Your task to perform on an android device: stop showing notifications on the lock screen Image 0: 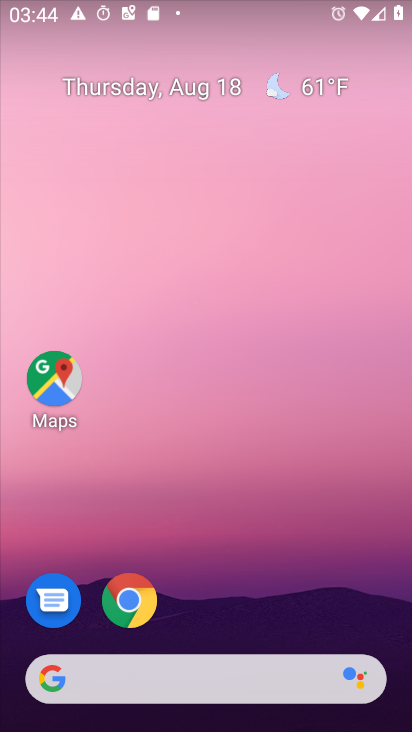
Step 0: drag from (246, 625) to (231, 0)
Your task to perform on an android device: stop showing notifications on the lock screen Image 1: 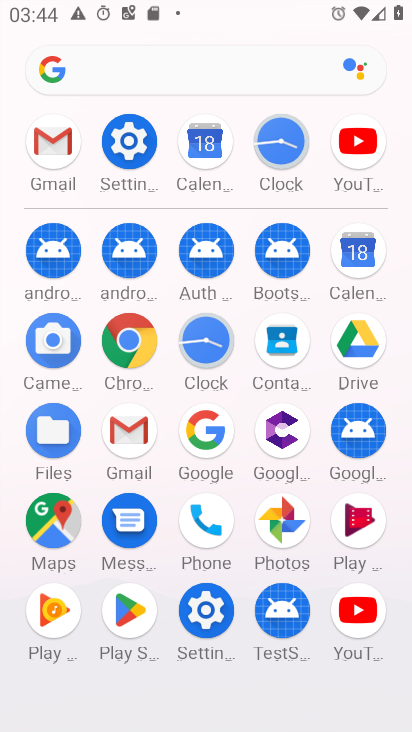
Step 1: click (123, 169)
Your task to perform on an android device: stop showing notifications on the lock screen Image 2: 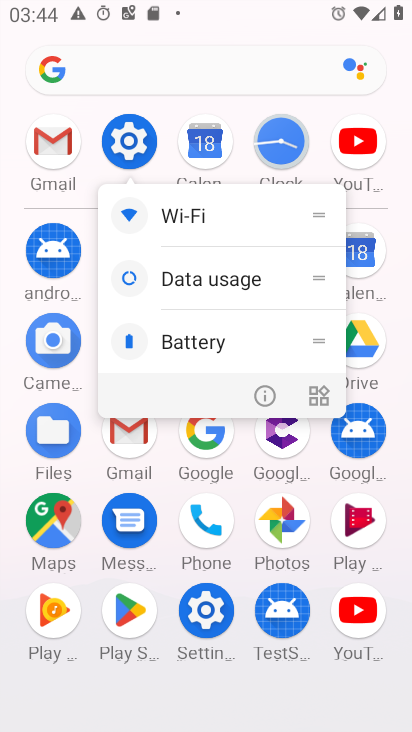
Step 2: click (133, 157)
Your task to perform on an android device: stop showing notifications on the lock screen Image 3: 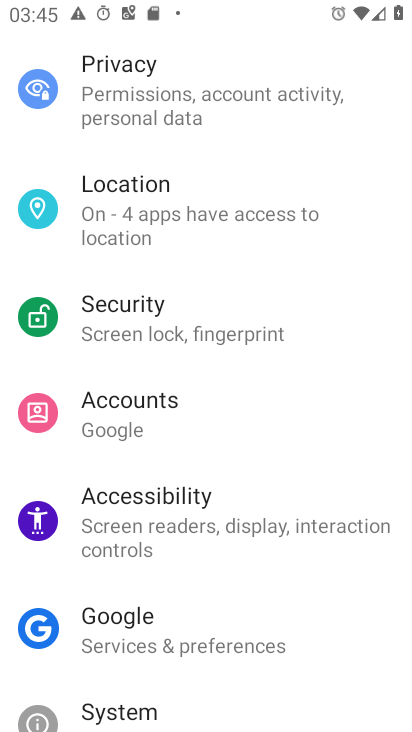
Step 3: drag from (316, 167) to (301, 683)
Your task to perform on an android device: stop showing notifications on the lock screen Image 4: 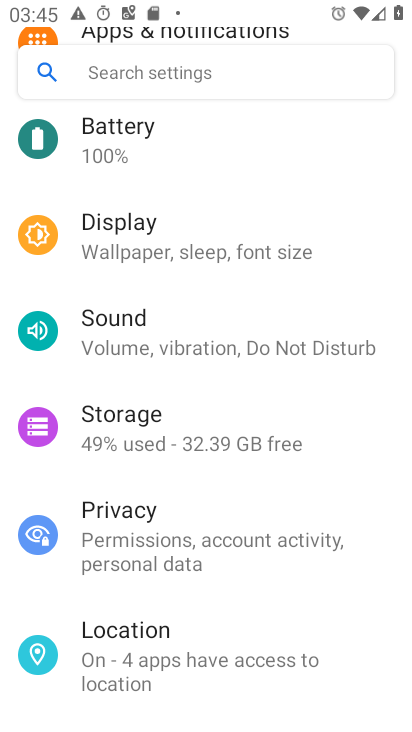
Step 4: drag from (231, 166) to (237, 723)
Your task to perform on an android device: stop showing notifications on the lock screen Image 5: 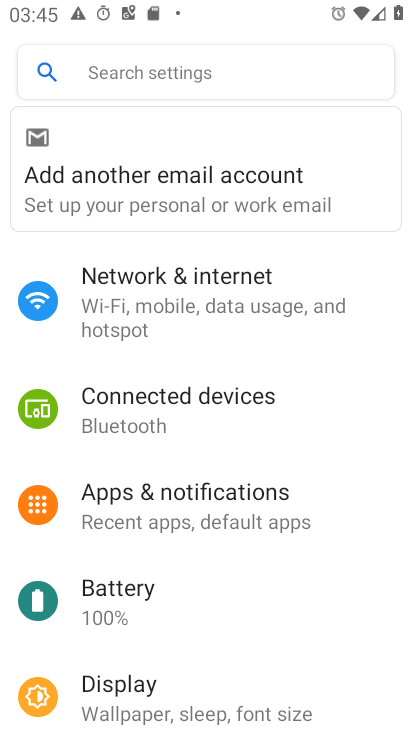
Step 5: click (129, 510)
Your task to perform on an android device: stop showing notifications on the lock screen Image 6: 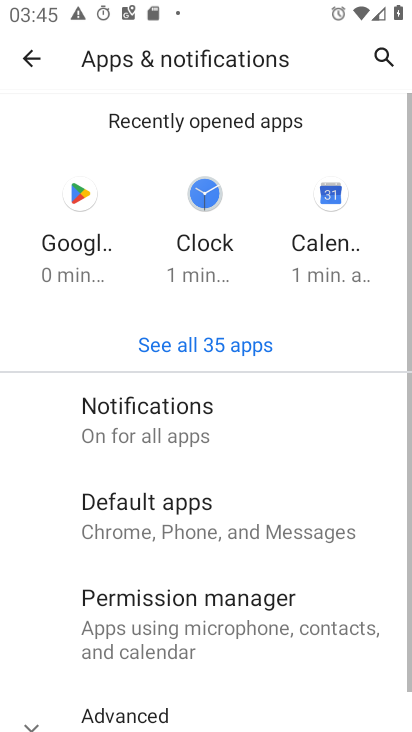
Step 6: click (138, 421)
Your task to perform on an android device: stop showing notifications on the lock screen Image 7: 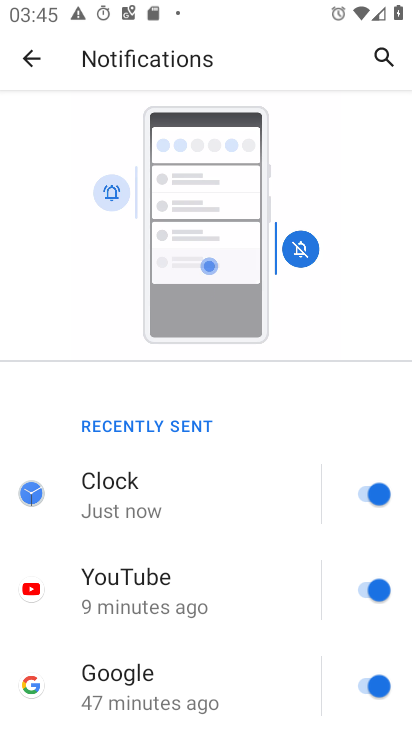
Step 7: drag from (280, 657) to (330, 128)
Your task to perform on an android device: stop showing notifications on the lock screen Image 8: 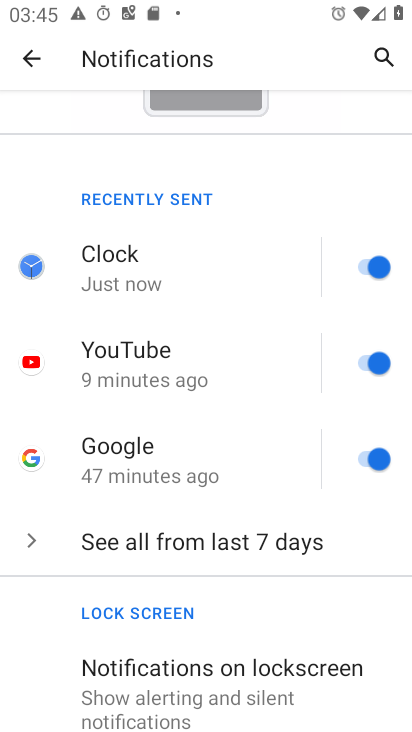
Step 8: drag from (246, 647) to (216, 288)
Your task to perform on an android device: stop showing notifications on the lock screen Image 9: 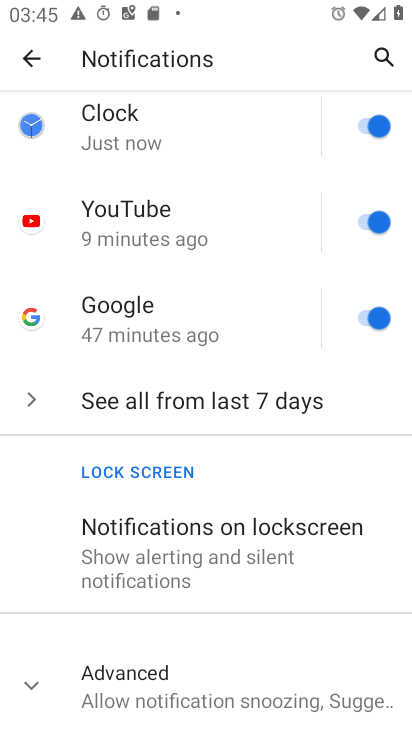
Step 9: click (127, 554)
Your task to perform on an android device: stop showing notifications on the lock screen Image 10: 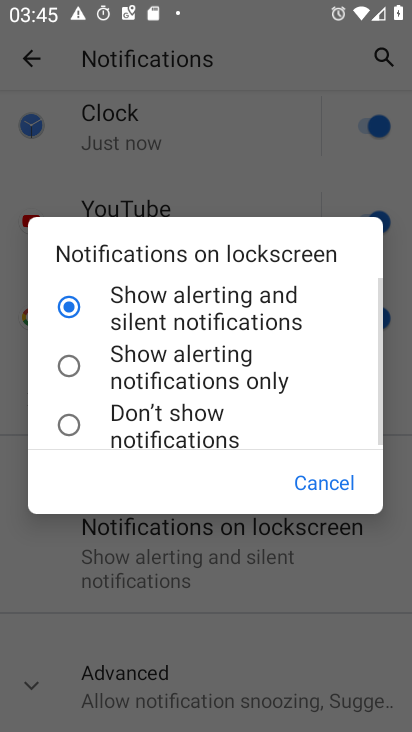
Step 10: click (63, 424)
Your task to perform on an android device: stop showing notifications on the lock screen Image 11: 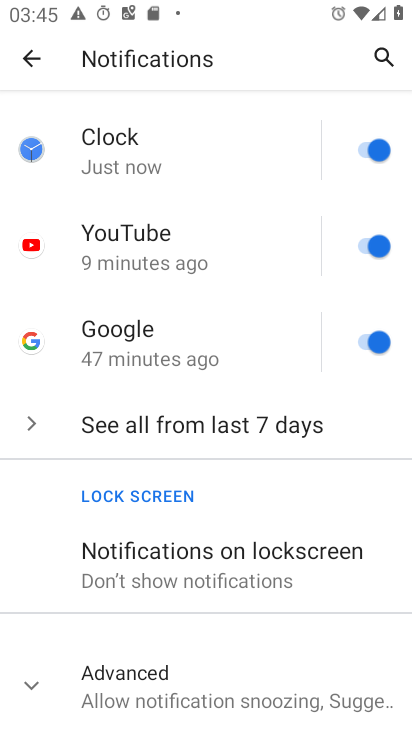
Step 11: task complete